Your task to perform on an android device: turn vacation reply on in the gmail app Image 0: 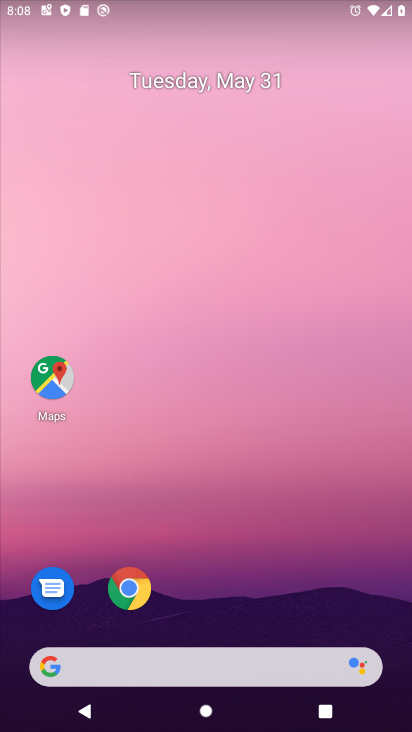
Step 0: drag from (200, 623) to (283, 11)
Your task to perform on an android device: turn vacation reply on in the gmail app Image 1: 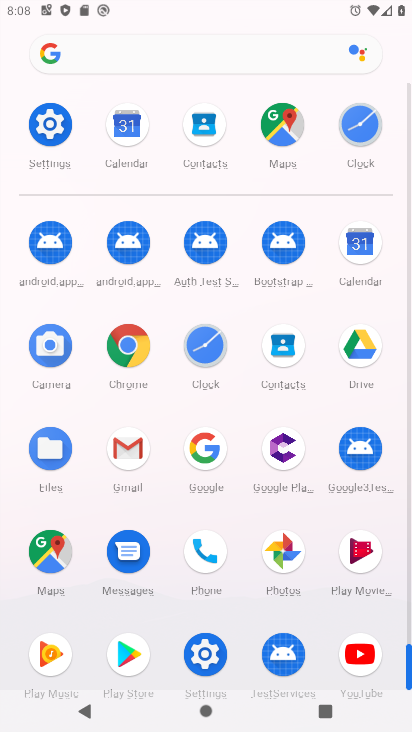
Step 1: click (130, 446)
Your task to perform on an android device: turn vacation reply on in the gmail app Image 2: 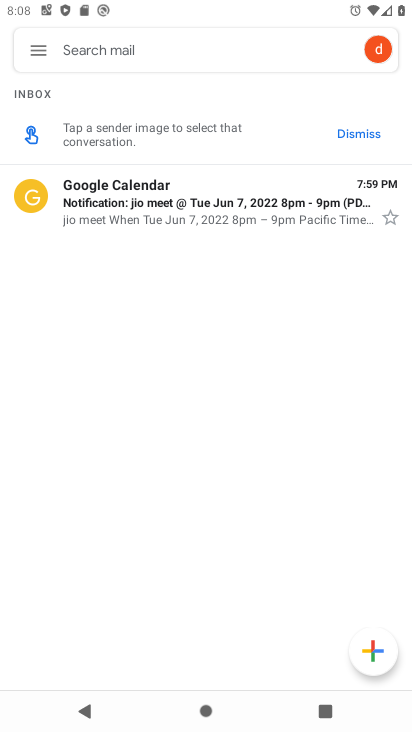
Step 2: click (37, 58)
Your task to perform on an android device: turn vacation reply on in the gmail app Image 3: 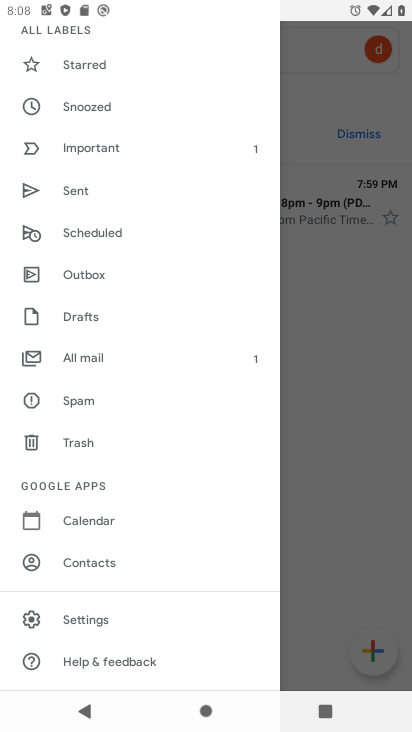
Step 3: click (90, 624)
Your task to perform on an android device: turn vacation reply on in the gmail app Image 4: 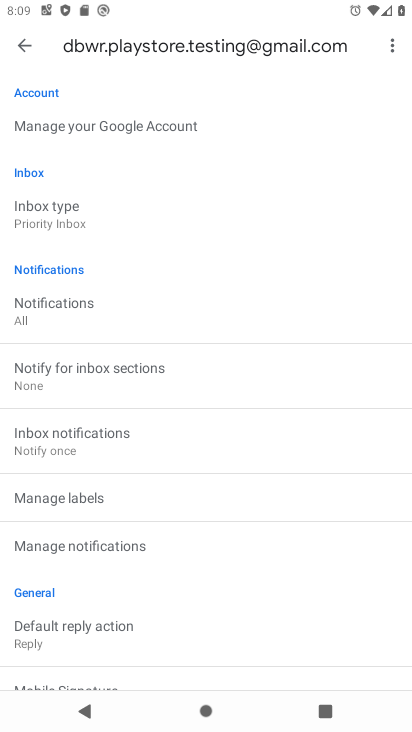
Step 4: drag from (94, 518) to (145, 104)
Your task to perform on an android device: turn vacation reply on in the gmail app Image 5: 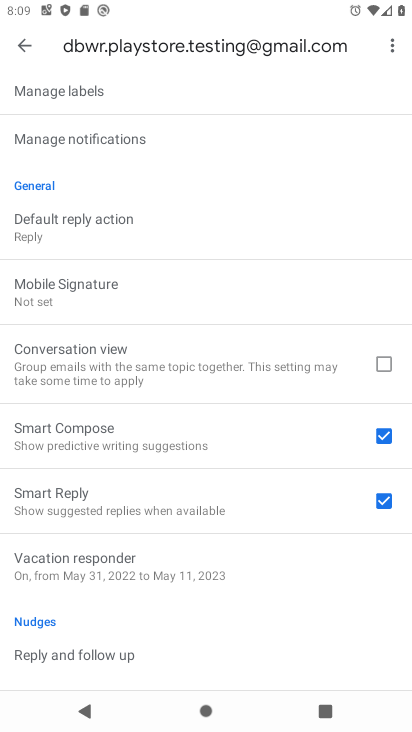
Step 5: click (181, 587)
Your task to perform on an android device: turn vacation reply on in the gmail app Image 6: 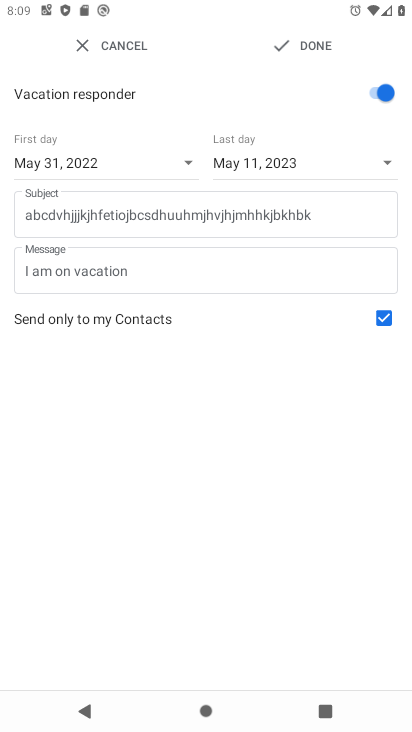
Step 6: task complete